Your task to perform on an android device: Go to Yahoo.com Image 0: 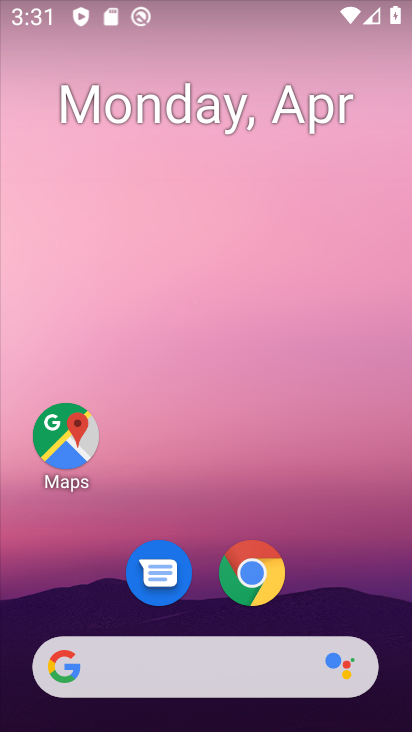
Step 0: drag from (341, 571) to (350, 117)
Your task to perform on an android device: Go to Yahoo.com Image 1: 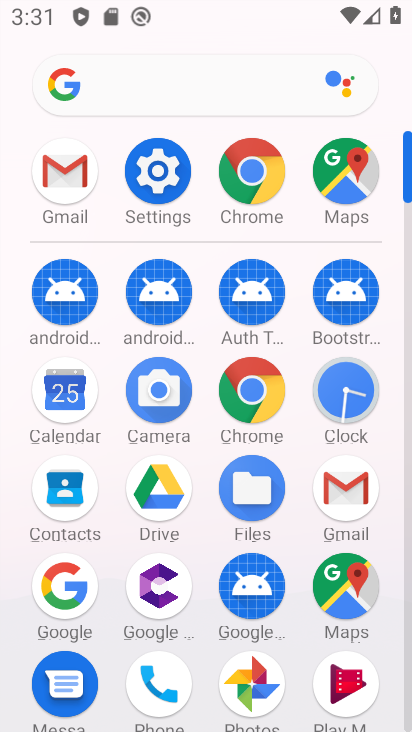
Step 1: click (260, 397)
Your task to perform on an android device: Go to Yahoo.com Image 2: 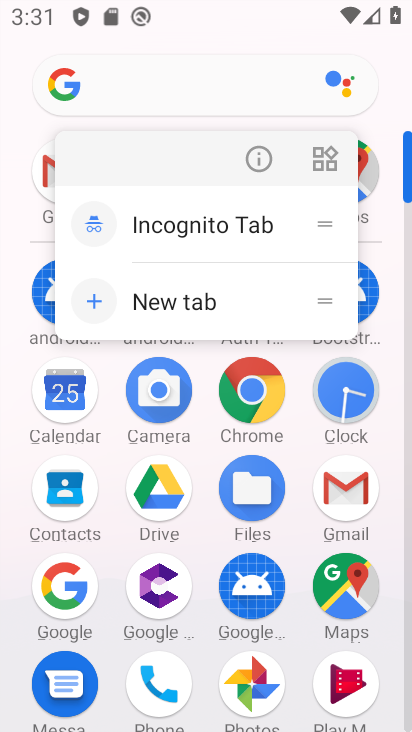
Step 2: click (253, 388)
Your task to perform on an android device: Go to Yahoo.com Image 3: 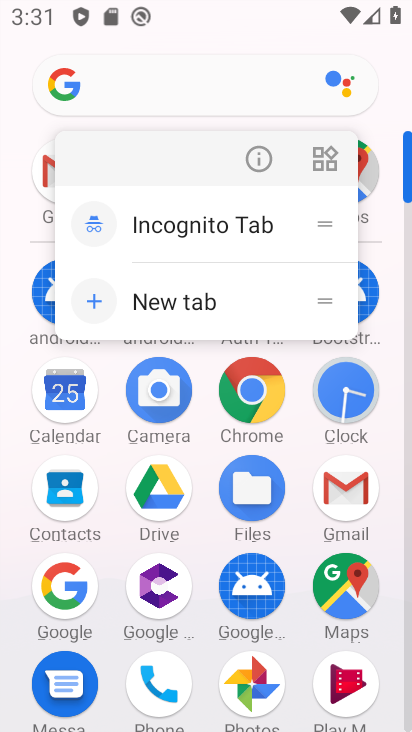
Step 3: click (231, 386)
Your task to perform on an android device: Go to Yahoo.com Image 4: 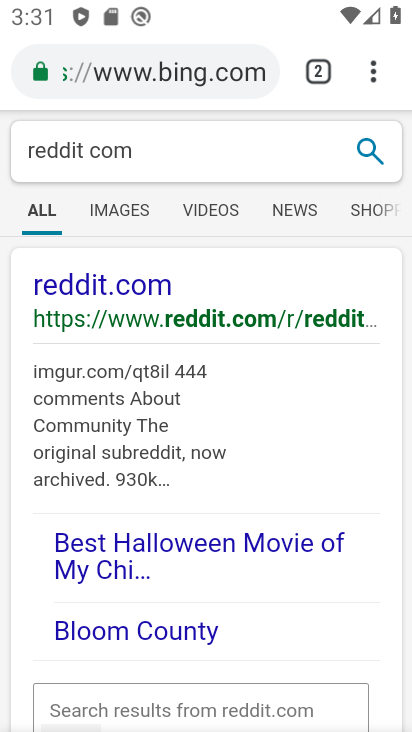
Step 4: click (218, 71)
Your task to perform on an android device: Go to Yahoo.com Image 5: 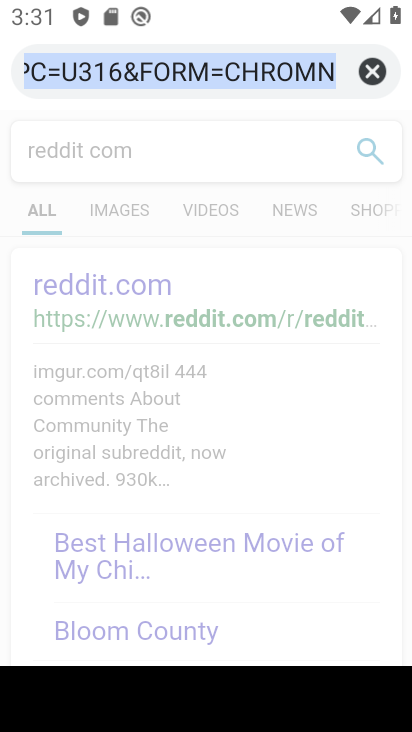
Step 5: click (365, 80)
Your task to perform on an android device: Go to Yahoo.com Image 6: 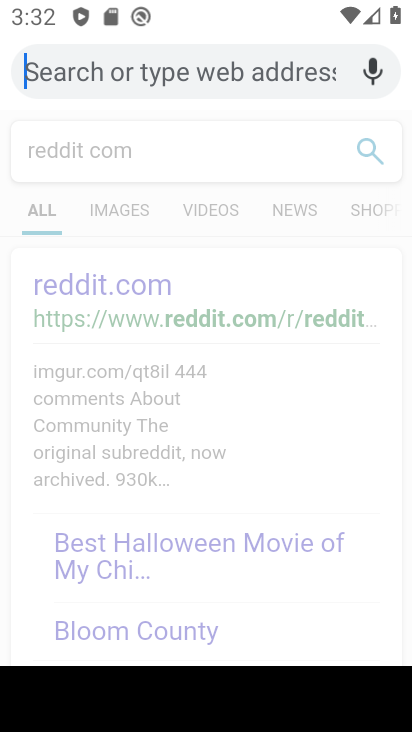
Step 6: type "yahoo.com"
Your task to perform on an android device: Go to Yahoo.com Image 7: 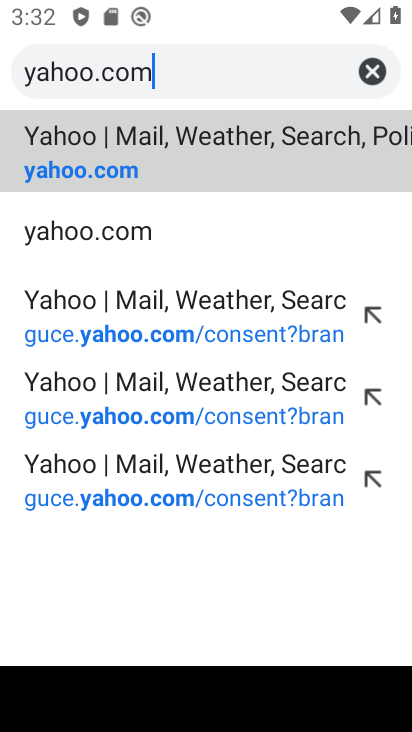
Step 7: click (176, 241)
Your task to perform on an android device: Go to Yahoo.com Image 8: 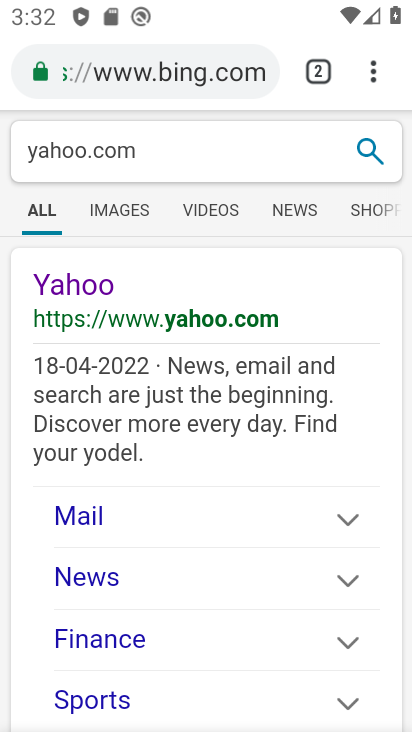
Step 8: task complete